Your task to perform on an android device: open app "Lyft - Rideshare, Bikes, Scooters & Transit" (install if not already installed) Image 0: 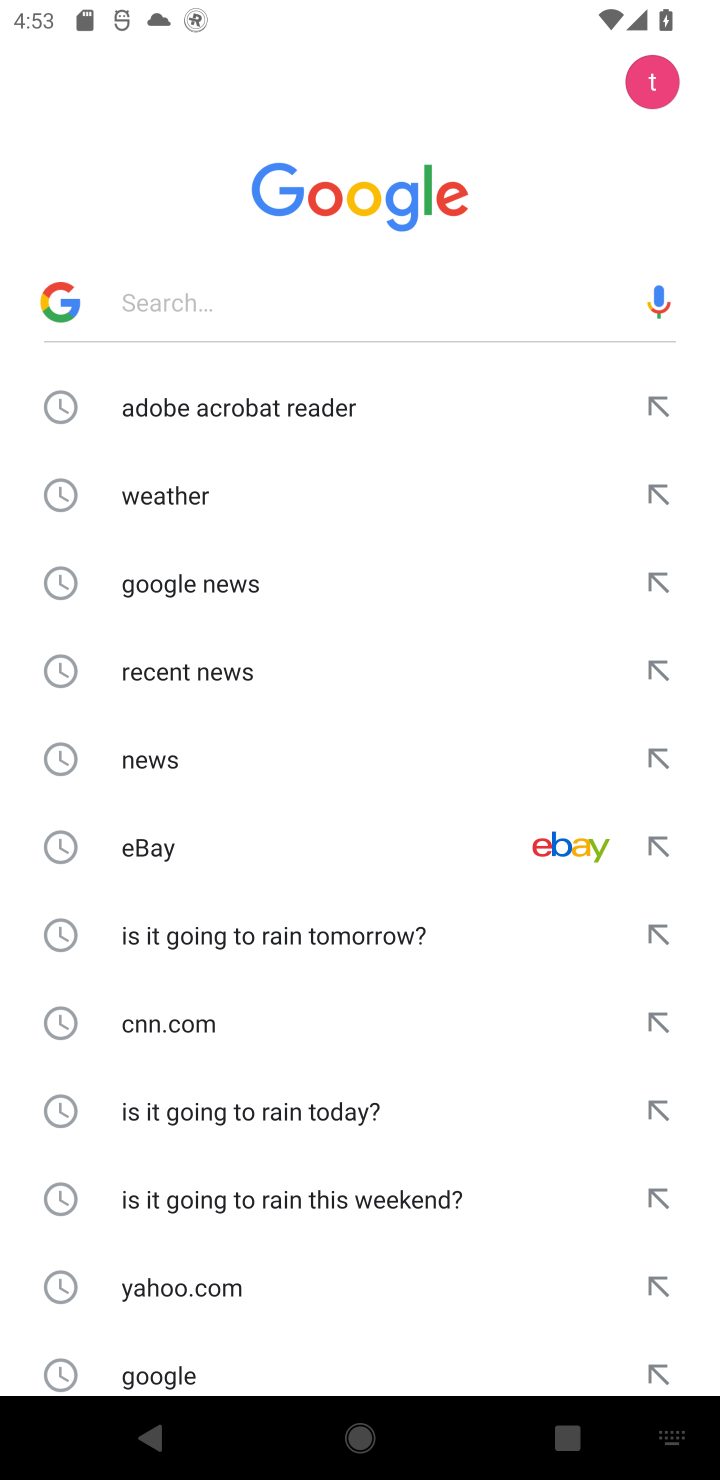
Step 0: press home button
Your task to perform on an android device: open app "Lyft - Rideshare, Bikes, Scooters & Transit" (install if not already installed) Image 1: 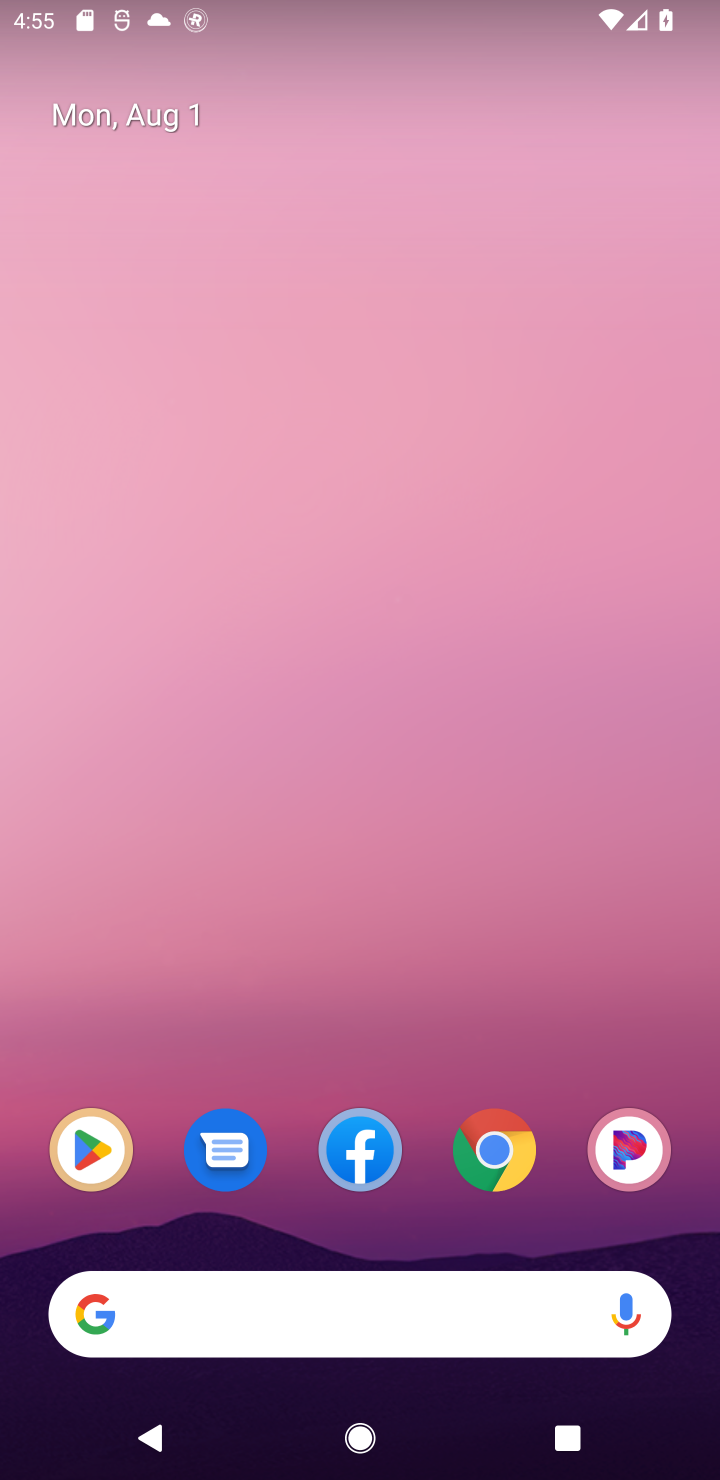
Step 1: task complete